Your task to perform on an android device: Go to battery settings Image 0: 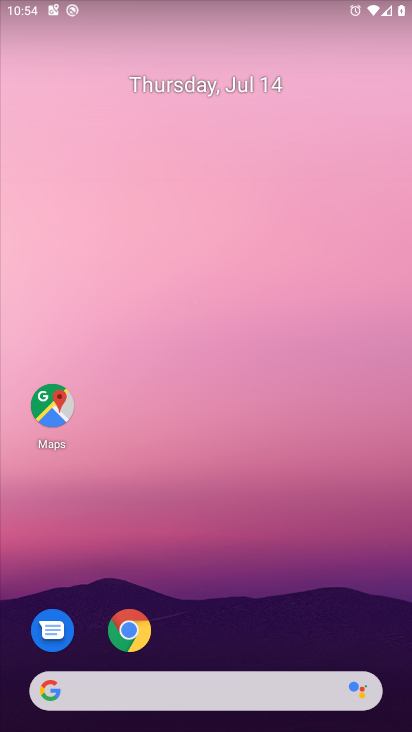
Step 0: drag from (31, 706) to (159, 97)
Your task to perform on an android device: Go to battery settings Image 1: 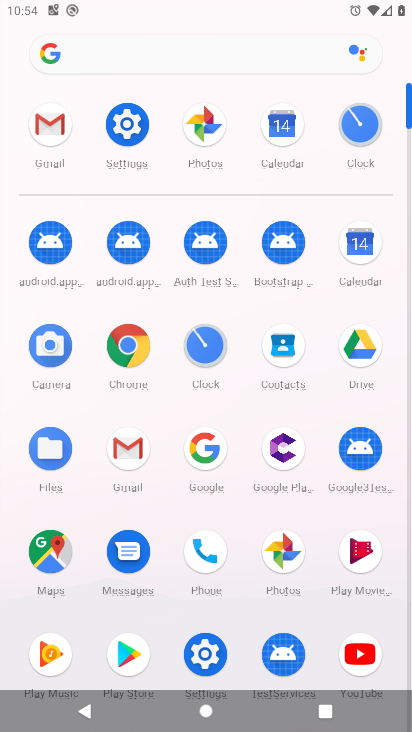
Step 1: click (219, 668)
Your task to perform on an android device: Go to battery settings Image 2: 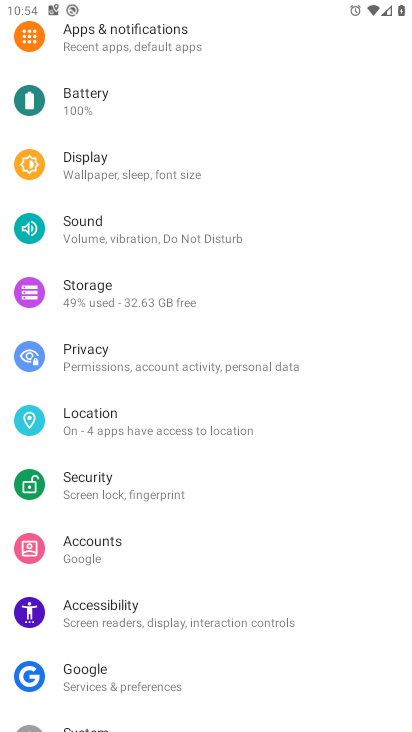
Step 2: click (132, 111)
Your task to perform on an android device: Go to battery settings Image 3: 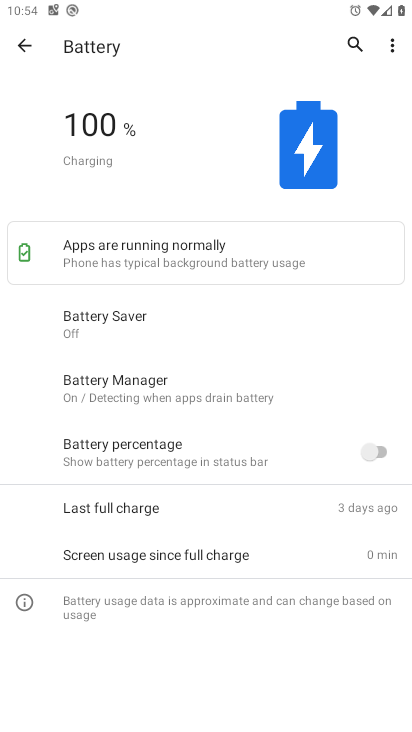
Step 3: task complete